Your task to perform on an android device: Open the stopwatch Image 0: 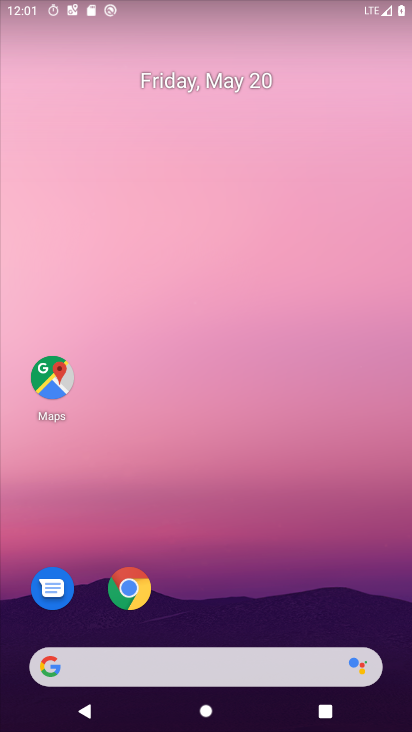
Step 0: press home button
Your task to perform on an android device: Open the stopwatch Image 1: 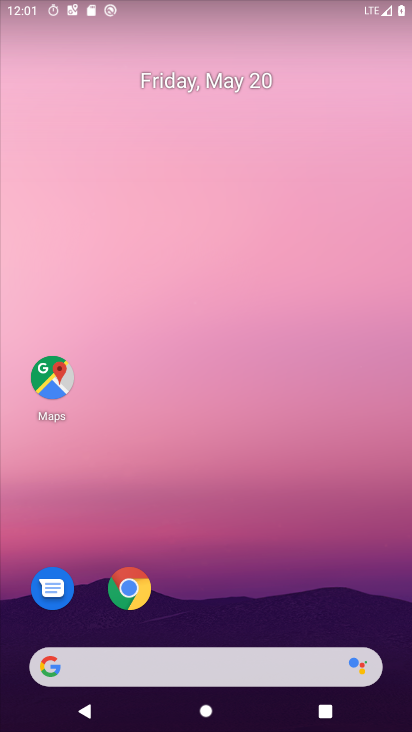
Step 1: drag from (196, 669) to (320, 243)
Your task to perform on an android device: Open the stopwatch Image 2: 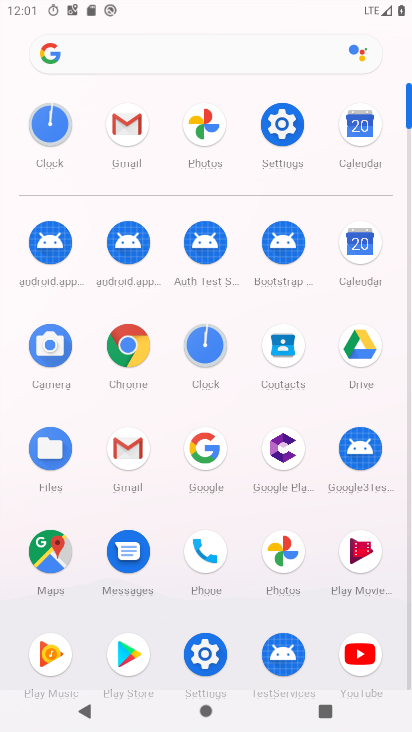
Step 2: click (57, 130)
Your task to perform on an android device: Open the stopwatch Image 3: 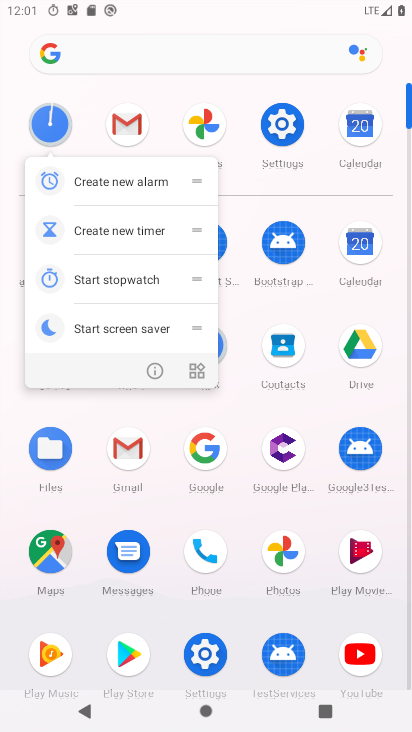
Step 3: click (57, 131)
Your task to perform on an android device: Open the stopwatch Image 4: 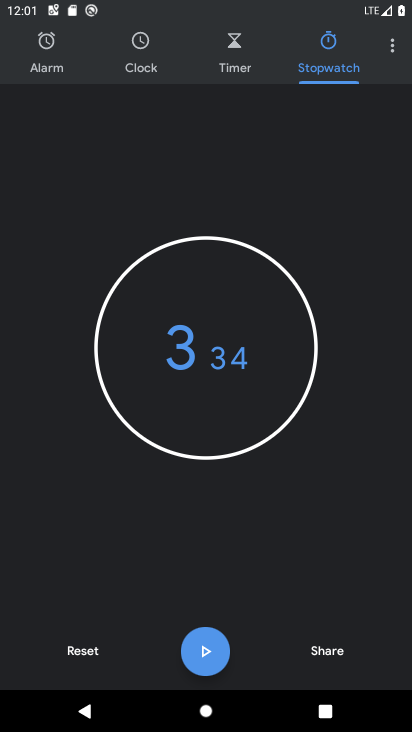
Step 4: task complete